Your task to perform on an android device: open wifi settings Image 0: 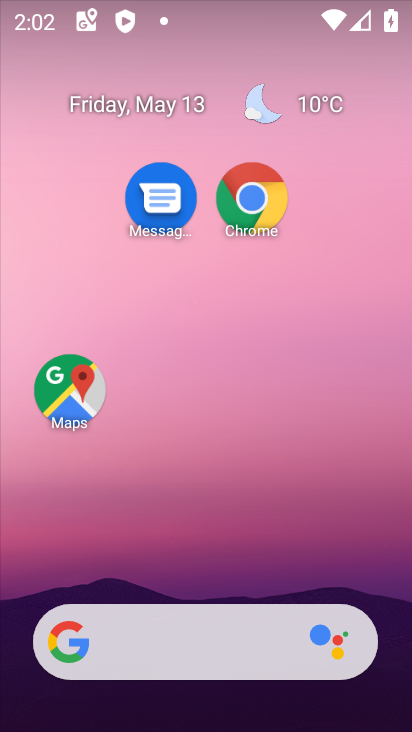
Step 0: drag from (204, 585) to (398, 403)
Your task to perform on an android device: open wifi settings Image 1: 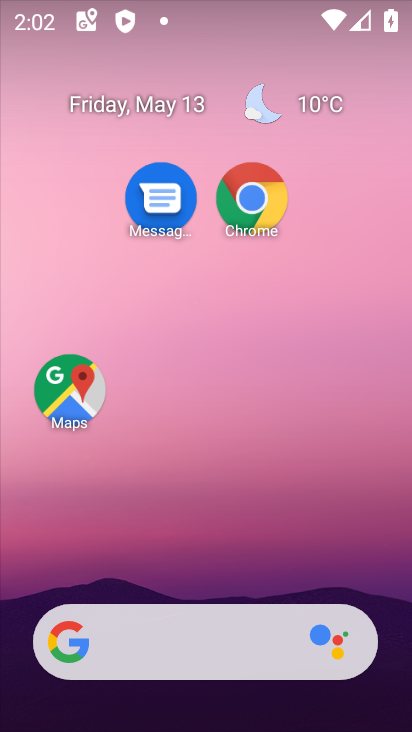
Step 1: drag from (216, 608) to (195, 7)
Your task to perform on an android device: open wifi settings Image 2: 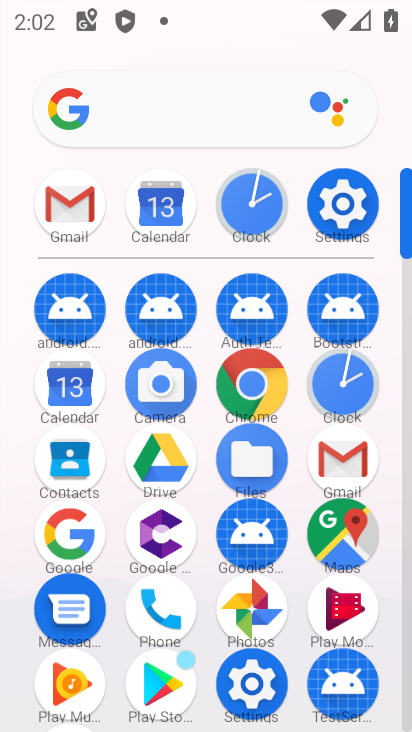
Step 2: click (336, 197)
Your task to perform on an android device: open wifi settings Image 3: 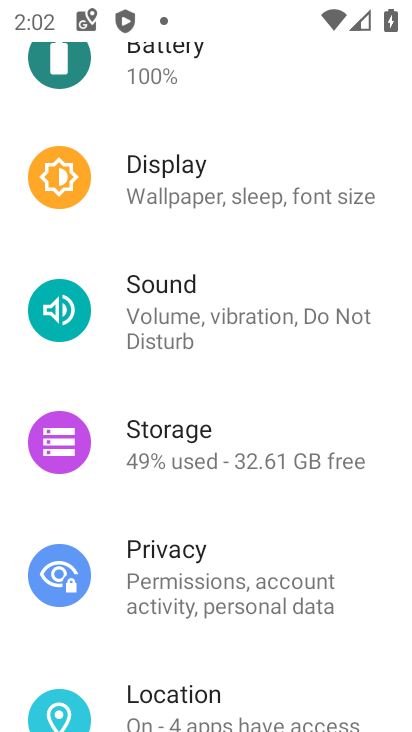
Step 3: drag from (204, 161) to (185, 669)
Your task to perform on an android device: open wifi settings Image 4: 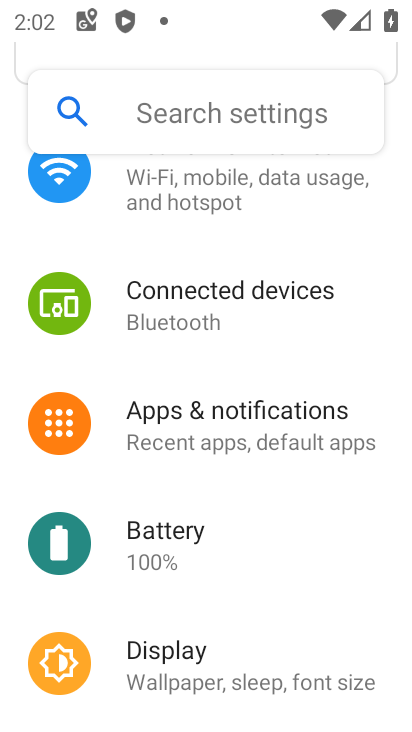
Step 4: click (185, 200)
Your task to perform on an android device: open wifi settings Image 5: 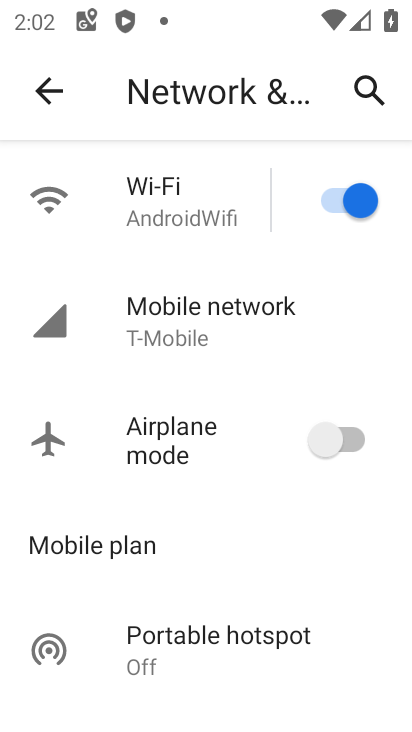
Step 5: click (174, 209)
Your task to perform on an android device: open wifi settings Image 6: 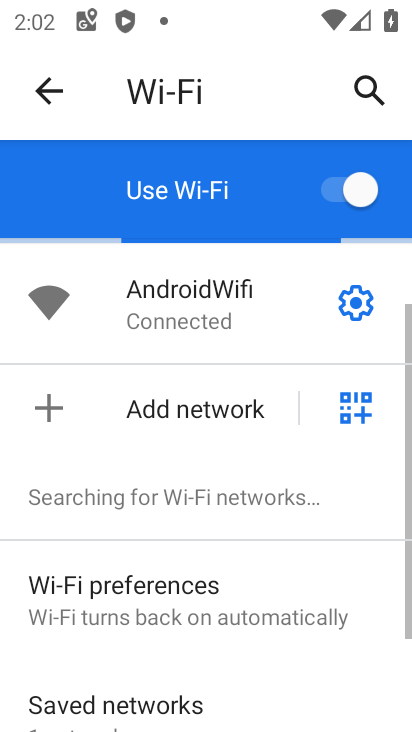
Step 6: task complete